Your task to perform on an android device: Open settings Image 0: 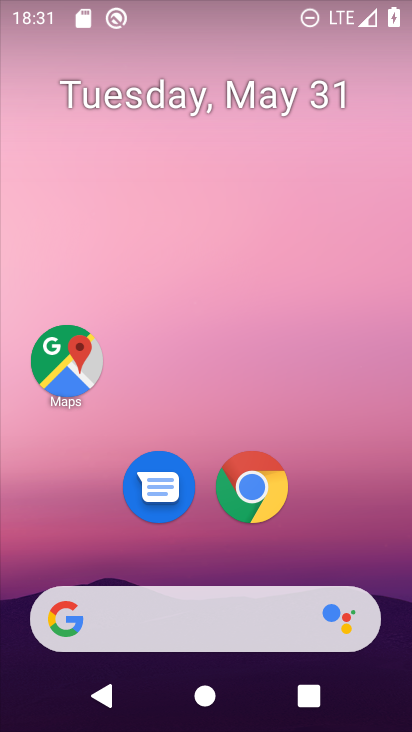
Step 0: drag from (321, 536) to (159, 44)
Your task to perform on an android device: Open settings Image 1: 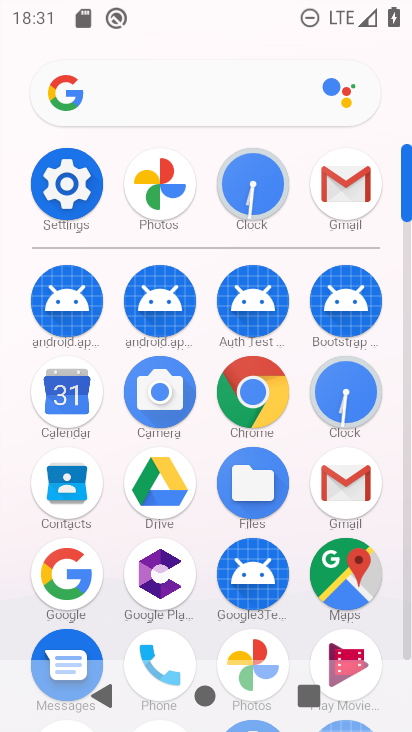
Step 1: click (72, 182)
Your task to perform on an android device: Open settings Image 2: 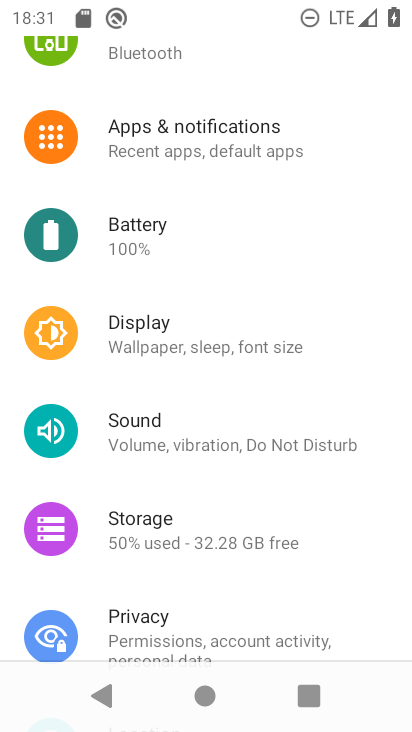
Step 2: task complete